Your task to perform on an android device: Open Google Chrome and open the bookmarks view Image 0: 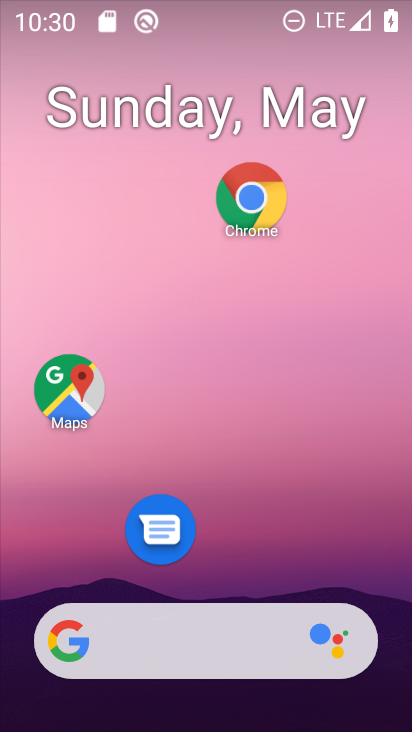
Step 0: click (252, 199)
Your task to perform on an android device: Open Google Chrome and open the bookmarks view Image 1: 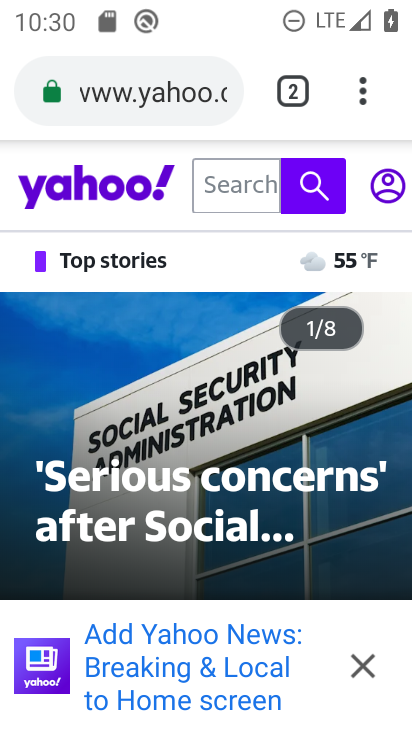
Step 1: click (356, 89)
Your task to perform on an android device: Open Google Chrome and open the bookmarks view Image 2: 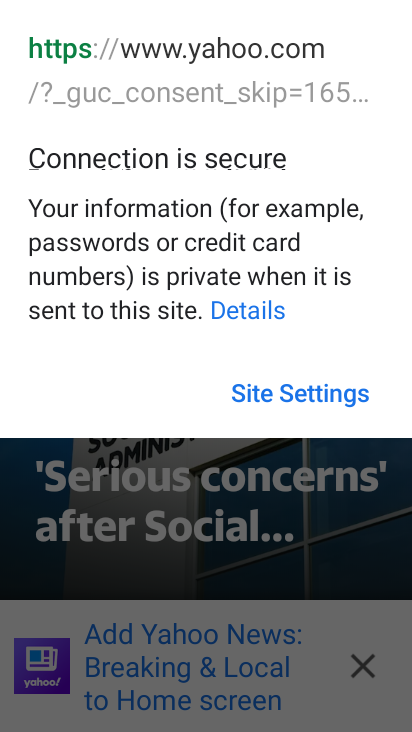
Step 2: press back button
Your task to perform on an android device: Open Google Chrome and open the bookmarks view Image 3: 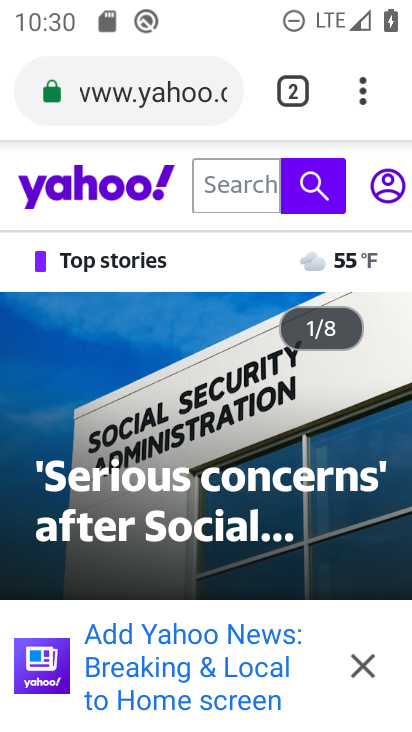
Step 3: click (358, 84)
Your task to perform on an android device: Open Google Chrome and open the bookmarks view Image 4: 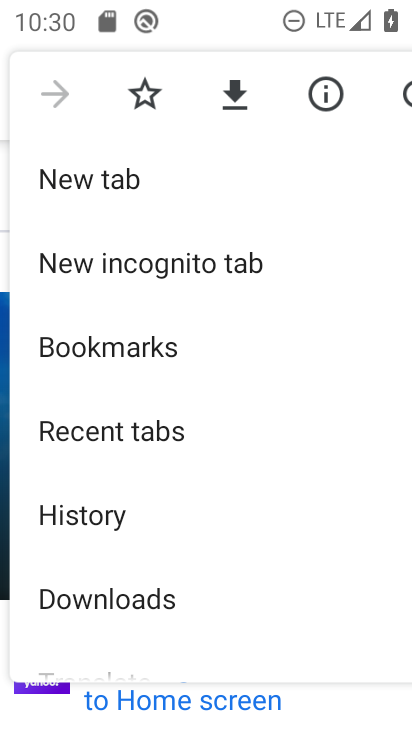
Step 4: click (105, 345)
Your task to perform on an android device: Open Google Chrome and open the bookmarks view Image 5: 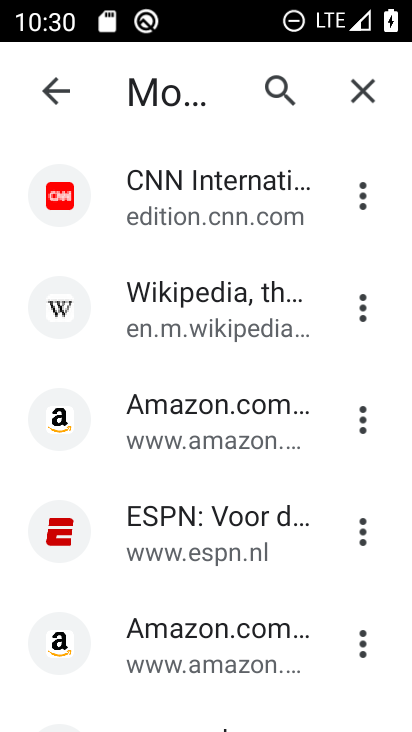
Step 5: task complete